Your task to perform on an android device: Open Google Image 0: 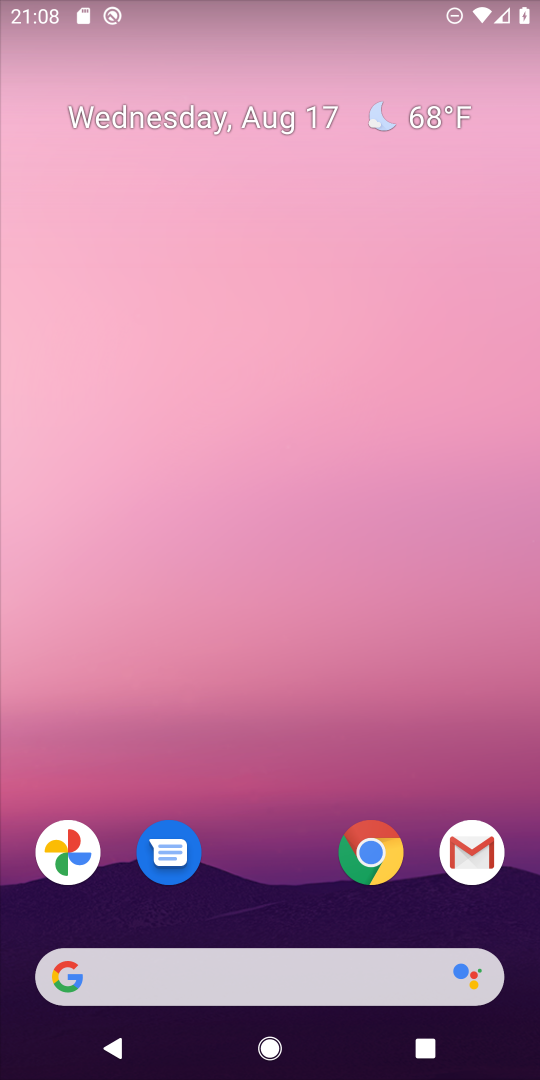
Step 0: click (61, 970)
Your task to perform on an android device: Open Google Image 1: 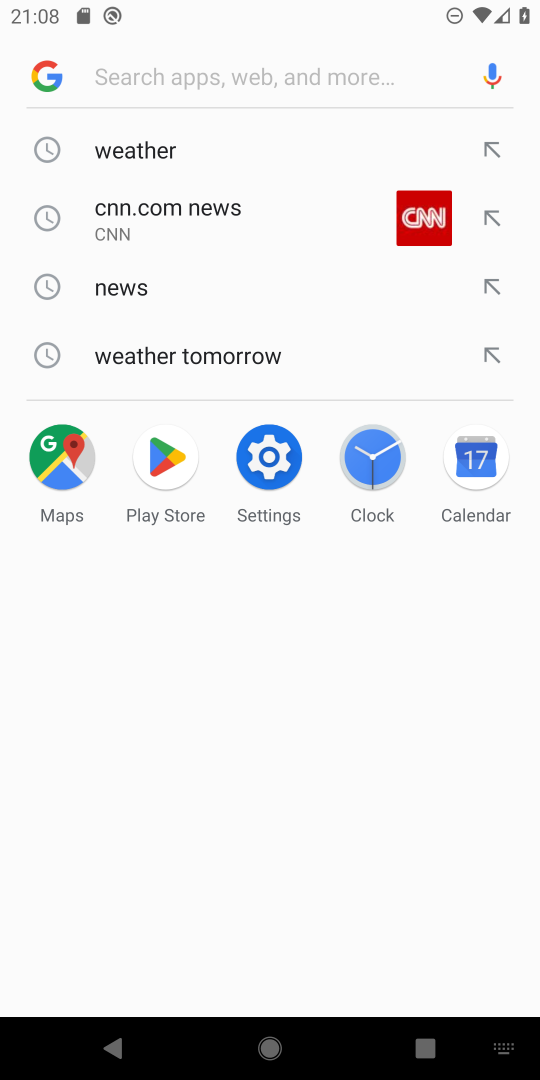
Step 1: click (49, 64)
Your task to perform on an android device: Open Google Image 2: 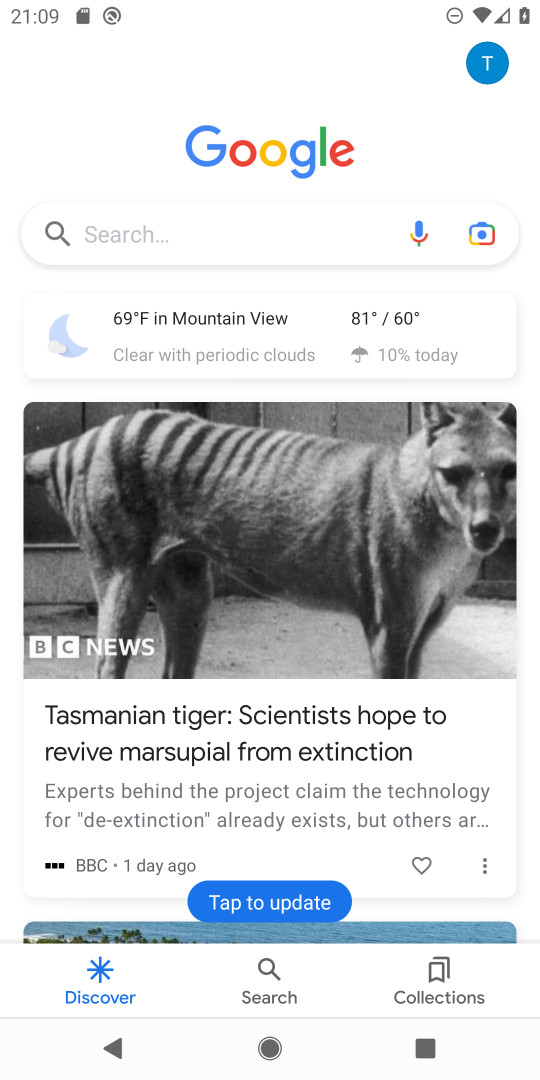
Step 2: task complete